Your task to perform on an android device: Open battery settings Image 0: 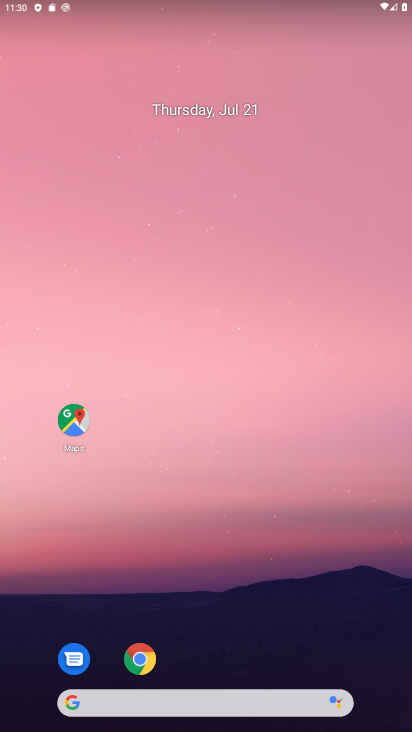
Step 0: drag from (293, 1) to (228, 434)
Your task to perform on an android device: Open battery settings Image 1: 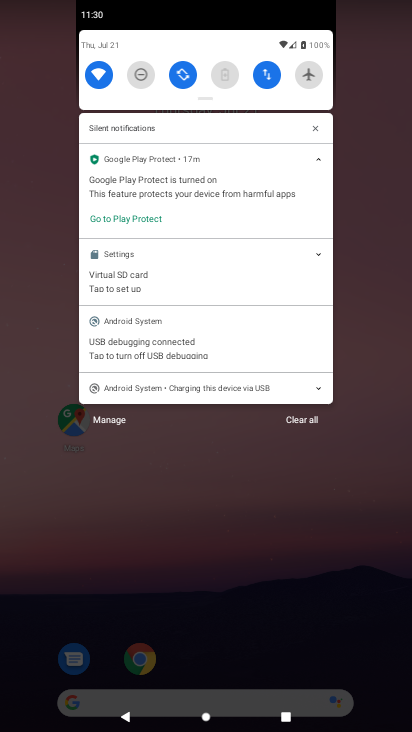
Step 1: click (225, 75)
Your task to perform on an android device: Open battery settings Image 2: 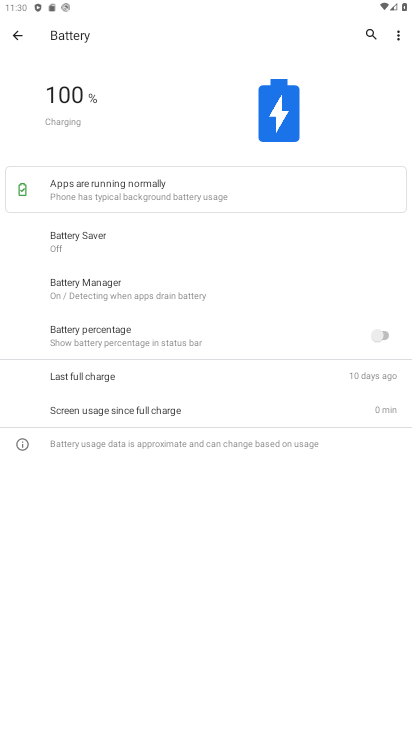
Step 2: task complete